Your task to perform on an android device: set an alarm Image 0: 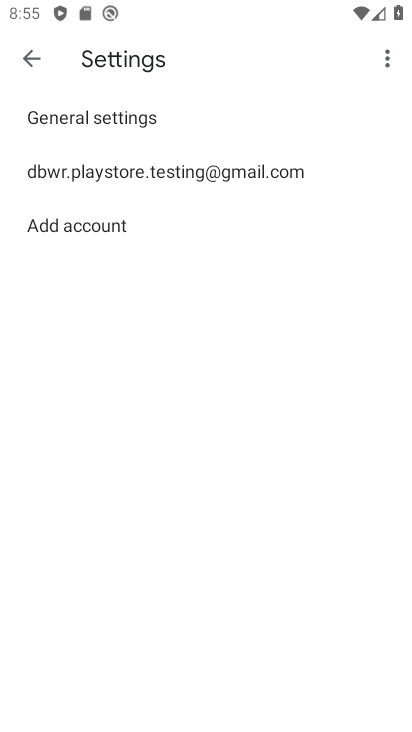
Step 0: press home button
Your task to perform on an android device: set an alarm Image 1: 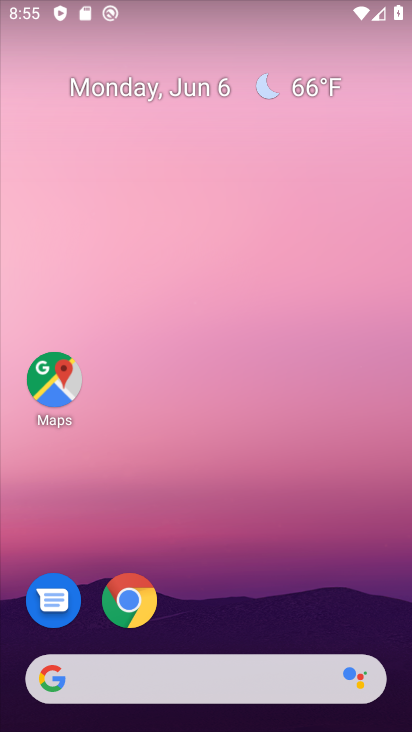
Step 1: drag from (8, 588) to (212, 112)
Your task to perform on an android device: set an alarm Image 2: 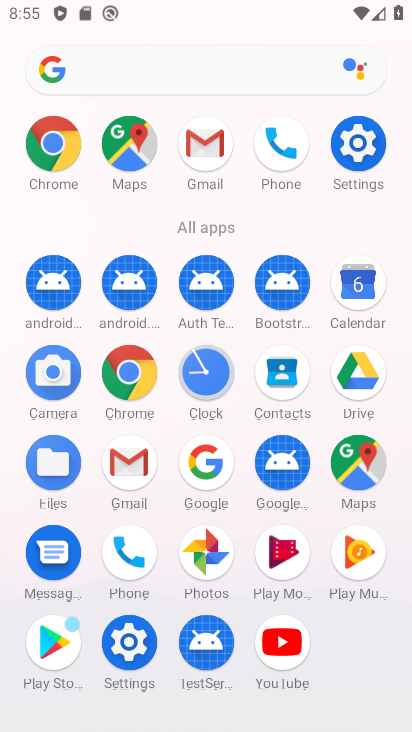
Step 2: click (187, 381)
Your task to perform on an android device: set an alarm Image 3: 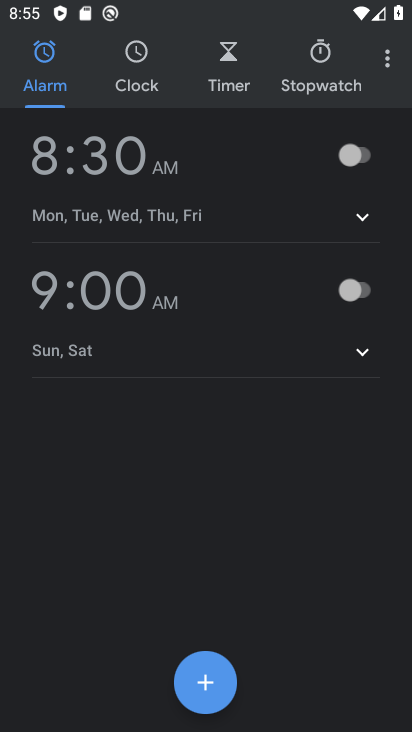
Step 3: click (196, 694)
Your task to perform on an android device: set an alarm Image 4: 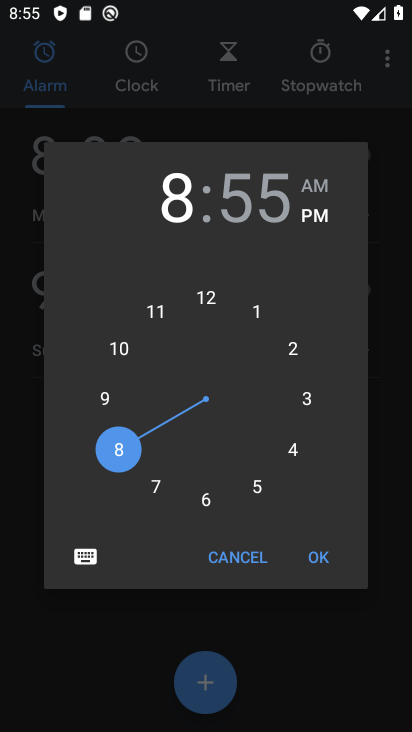
Step 4: click (326, 561)
Your task to perform on an android device: set an alarm Image 5: 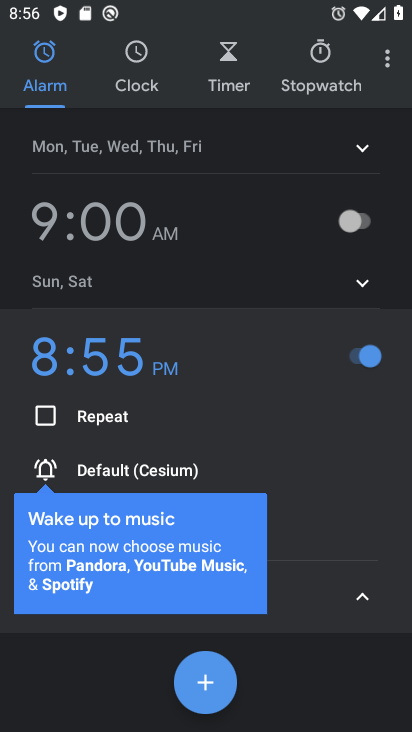
Step 5: task complete